Your task to perform on an android device: install app "Upside-Cash back on gas & food" Image 0: 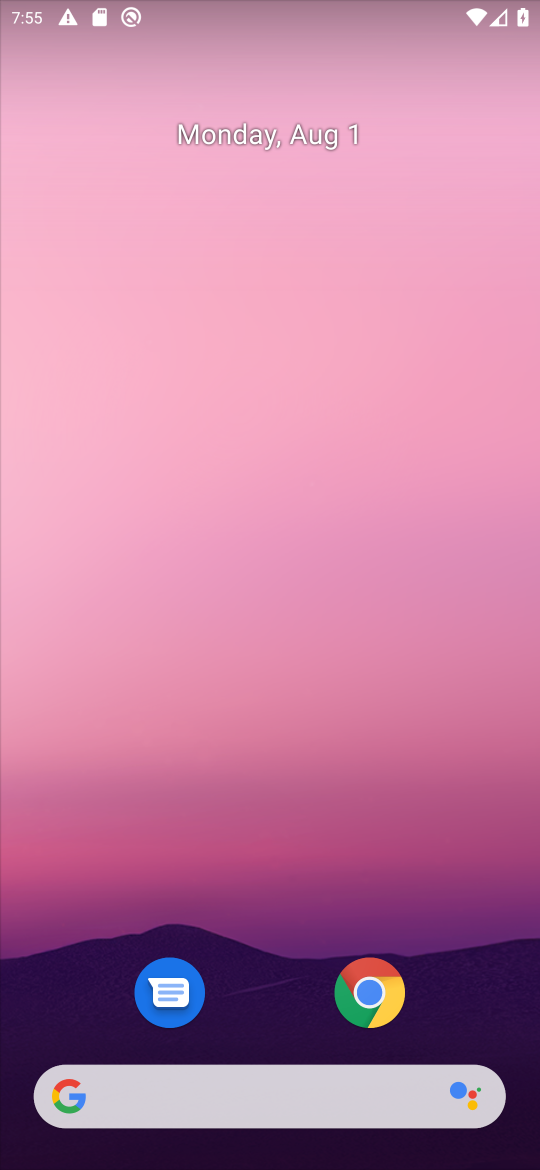
Step 0: drag from (458, 985) to (402, 61)
Your task to perform on an android device: install app "Upside-Cash back on gas & food" Image 1: 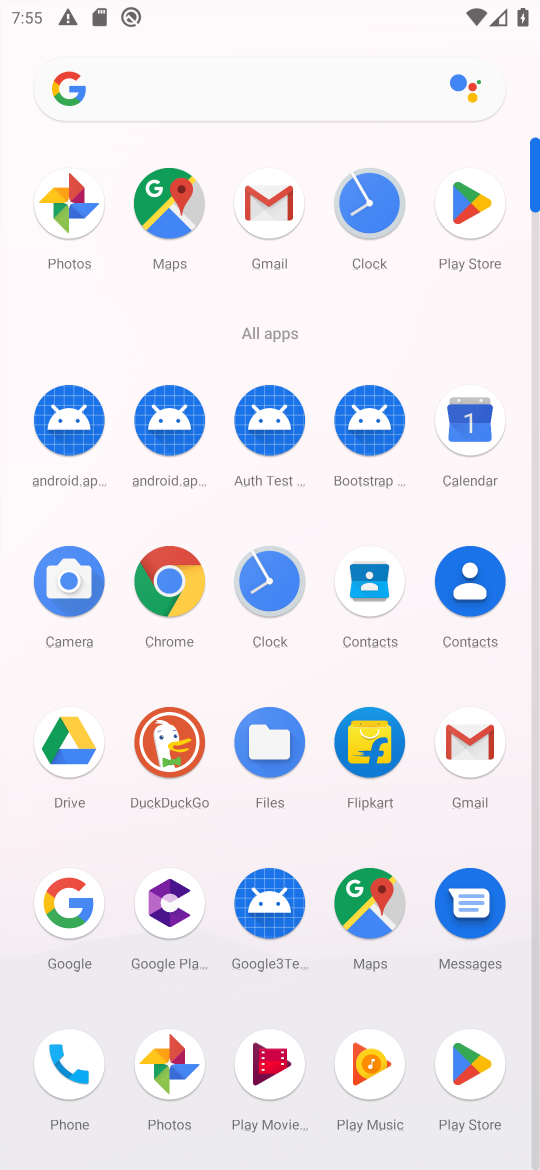
Step 1: click (475, 185)
Your task to perform on an android device: install app "Upside-Cash back on gas & food" Image 2: 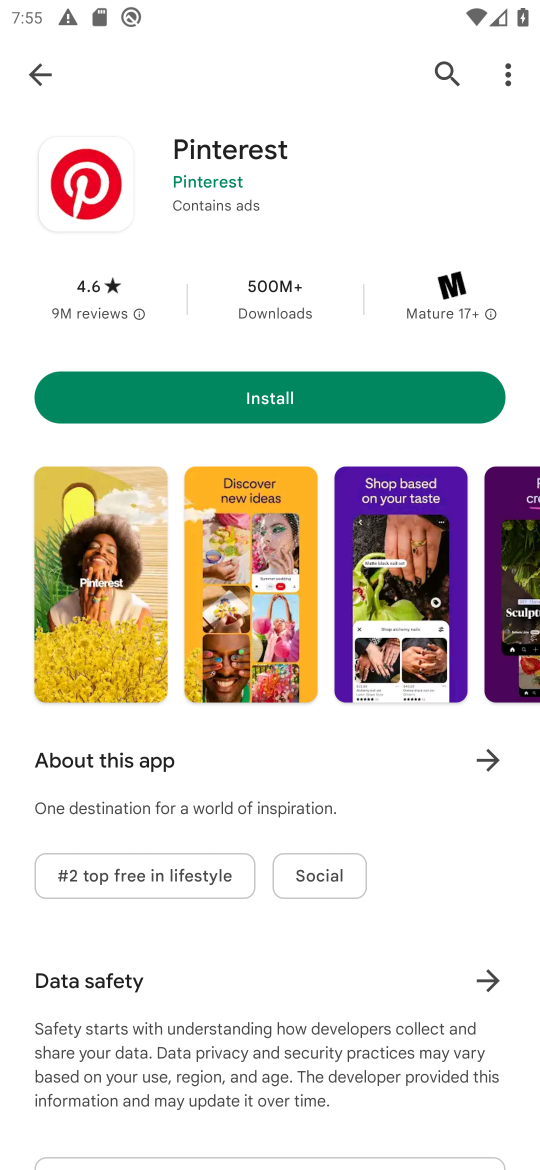
Step 2: click (379, 62)
Your task to perform on an android device: install app "Upside-Cash back on gas & food" Image 3: 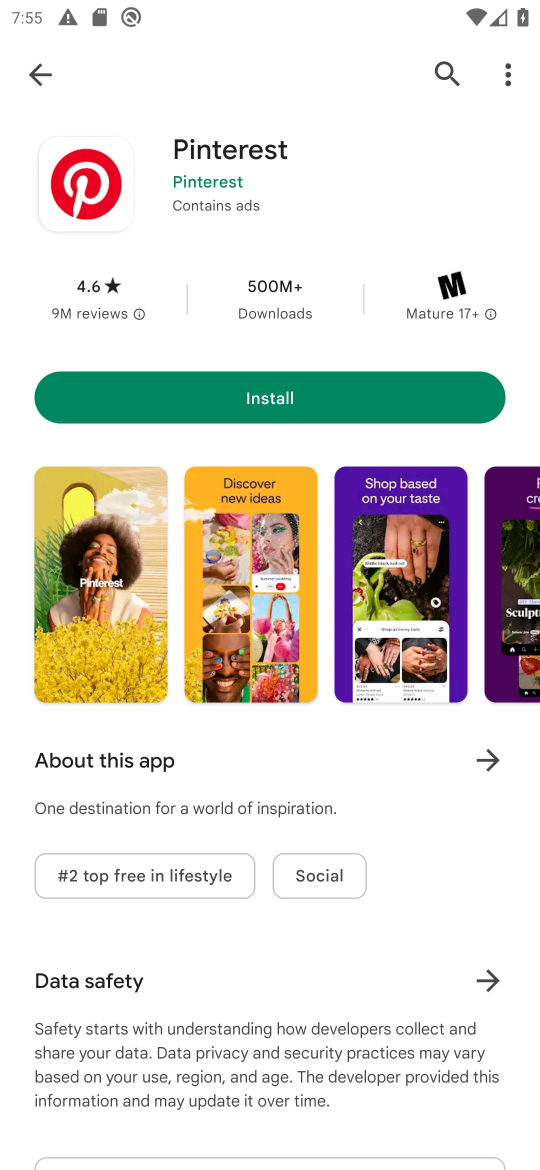
Step 3: click (33, 63)
Your task to perform on an android device: install app "Upside-Cash back on gas & food" Image 4: 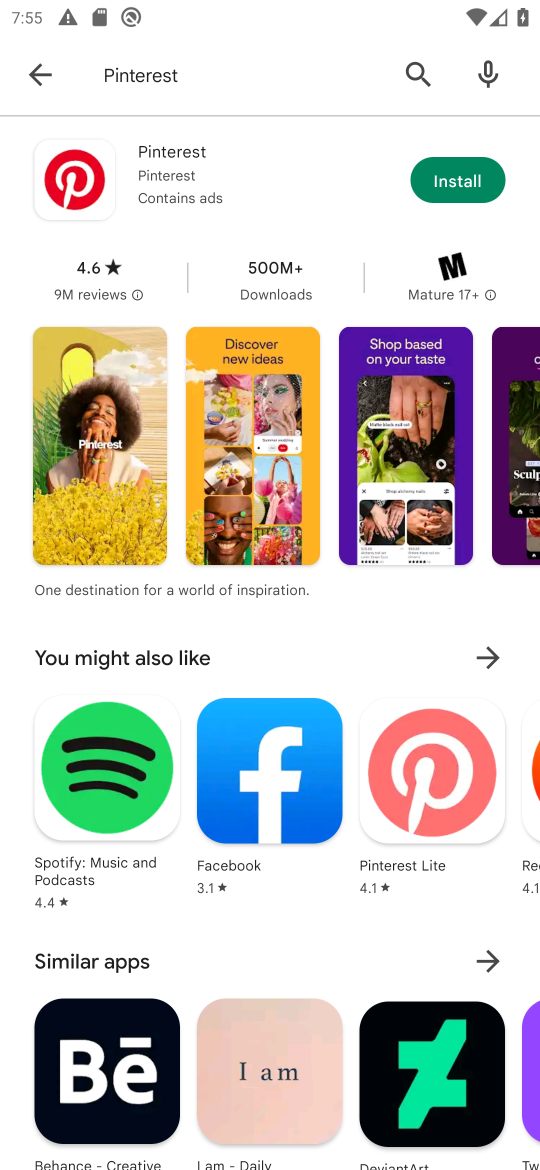
Step 4: click (250, 85)
Your task to perform on an android device: install app "Upside-Cash back on gas & food" Image 5: 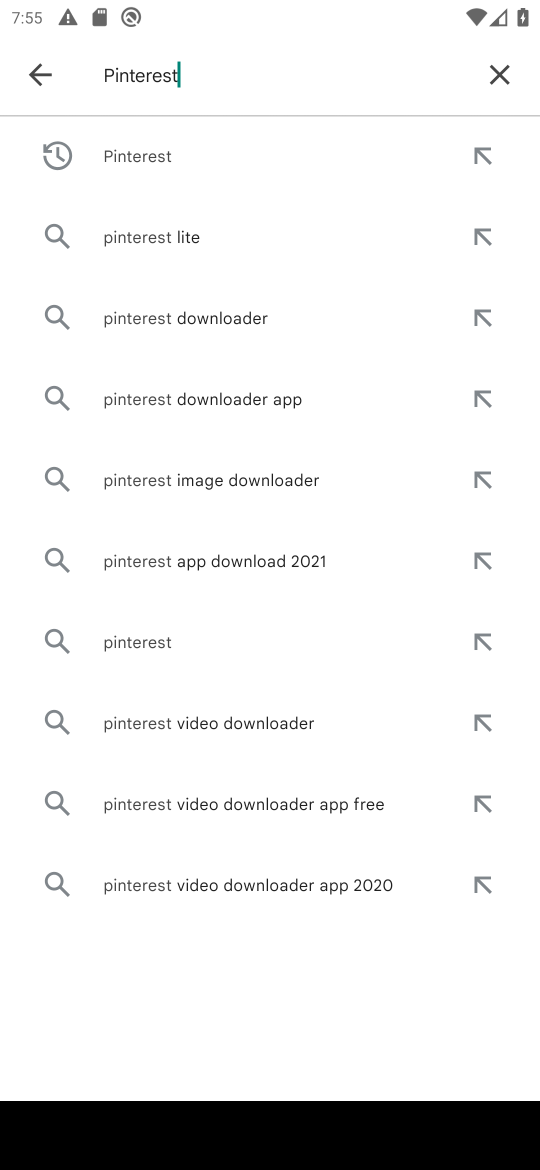
Step 5: click (489, 63)
Your task to perform on an android device: install app "Upside-Cash back on gas & food" Image 6: 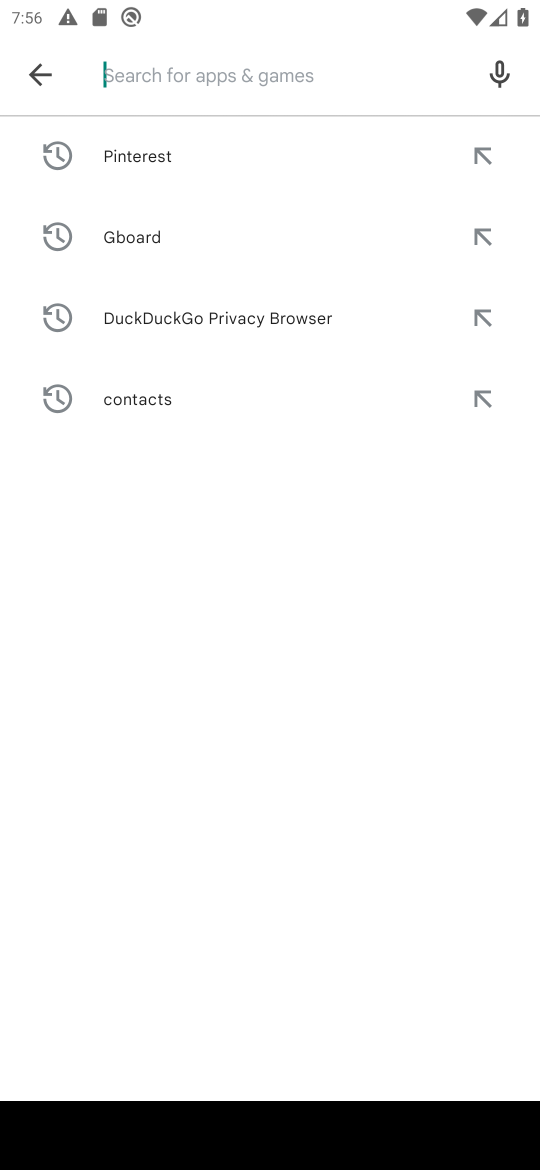
Step 6: type "Upside-Cash back on gas & food"
Your task to perform on an android device: install app "Upside-Cash back on gas & food" Image 7: 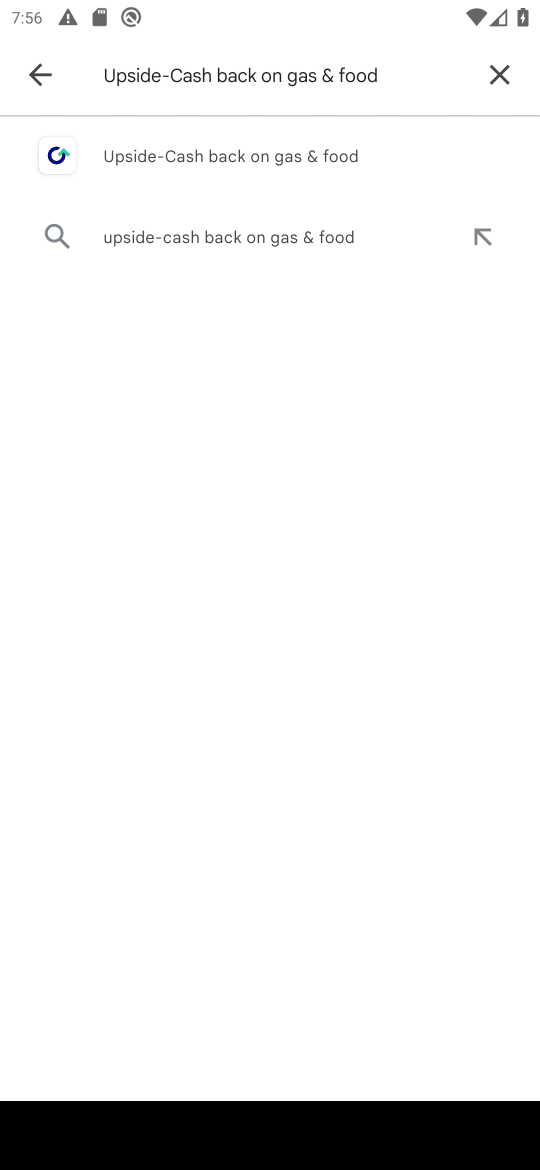
Step 7: press enter
Your task to perform on an android device: install app "Upside-Cash back on gas & food" Image 8: 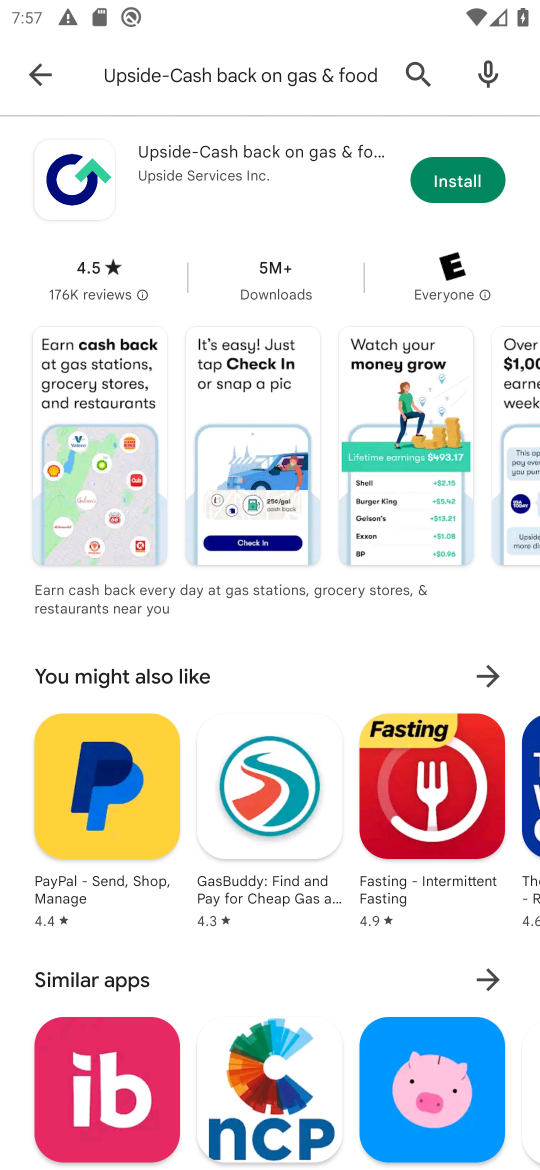
Step 8: click (416, 171)
Your task to perform on an android device: install app "Upside-Cash back on gas & food" Image 9: 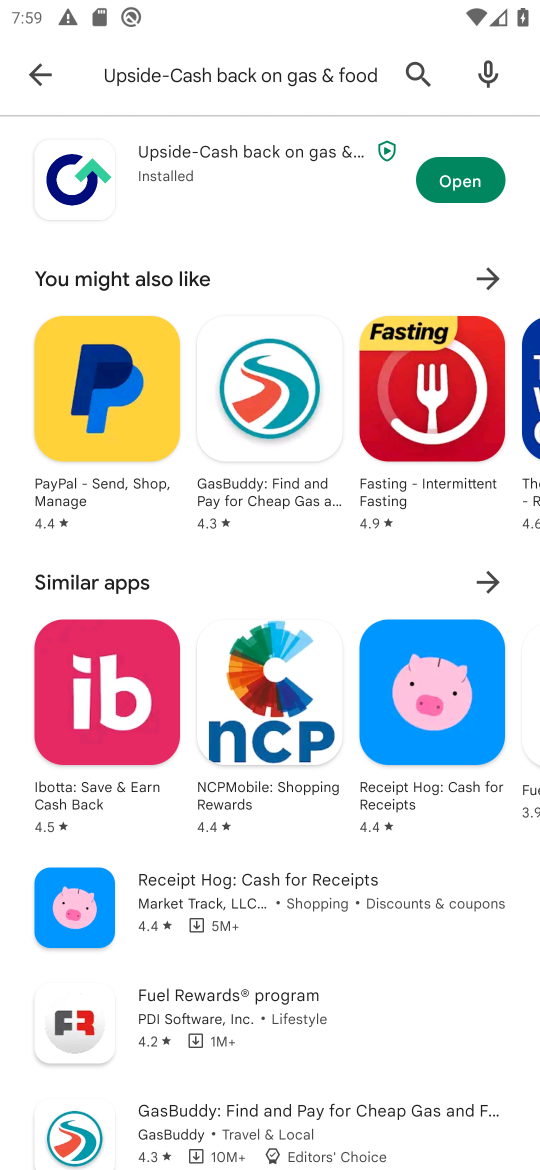
Step 9: task complete